Your task to perform on an android device: Check the weather Image 0: 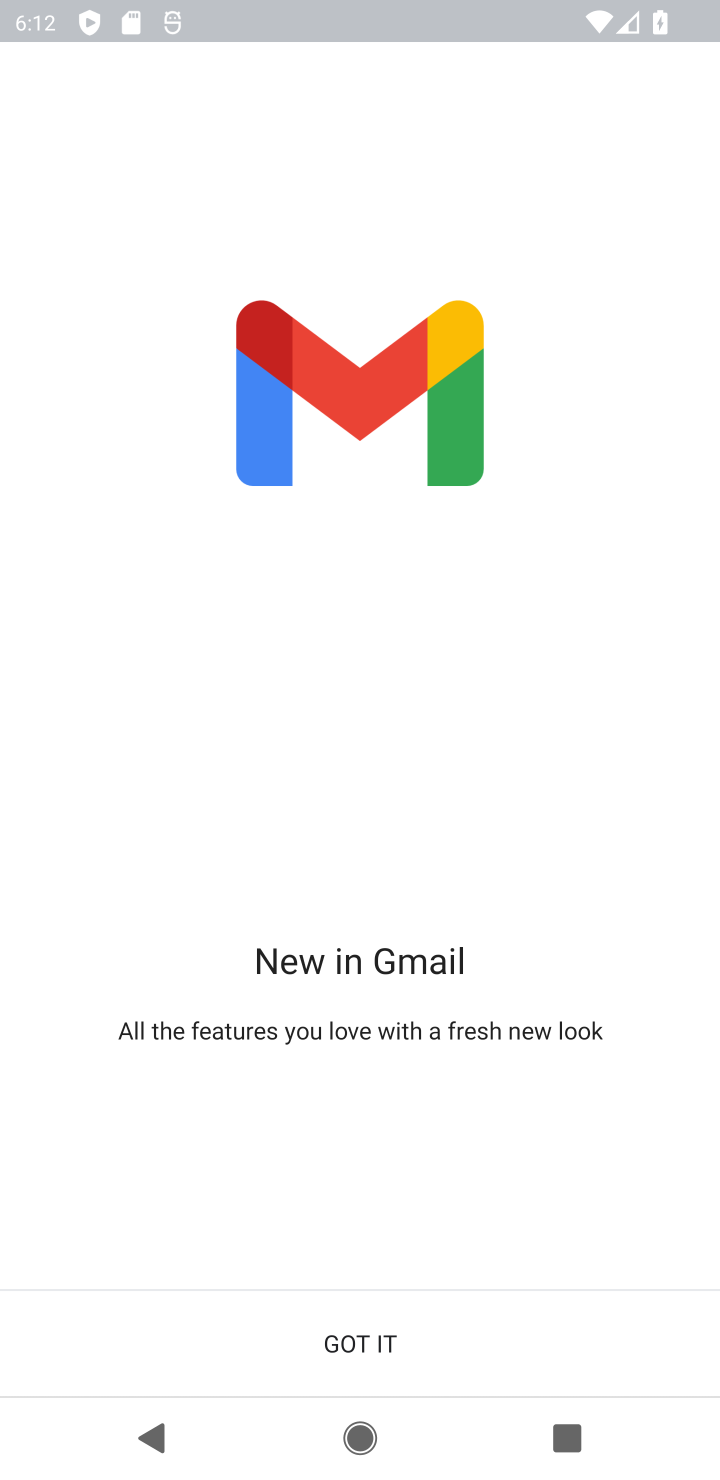
Step 0: press home button
Your task to perform on an android device: Check the weather Image 1: 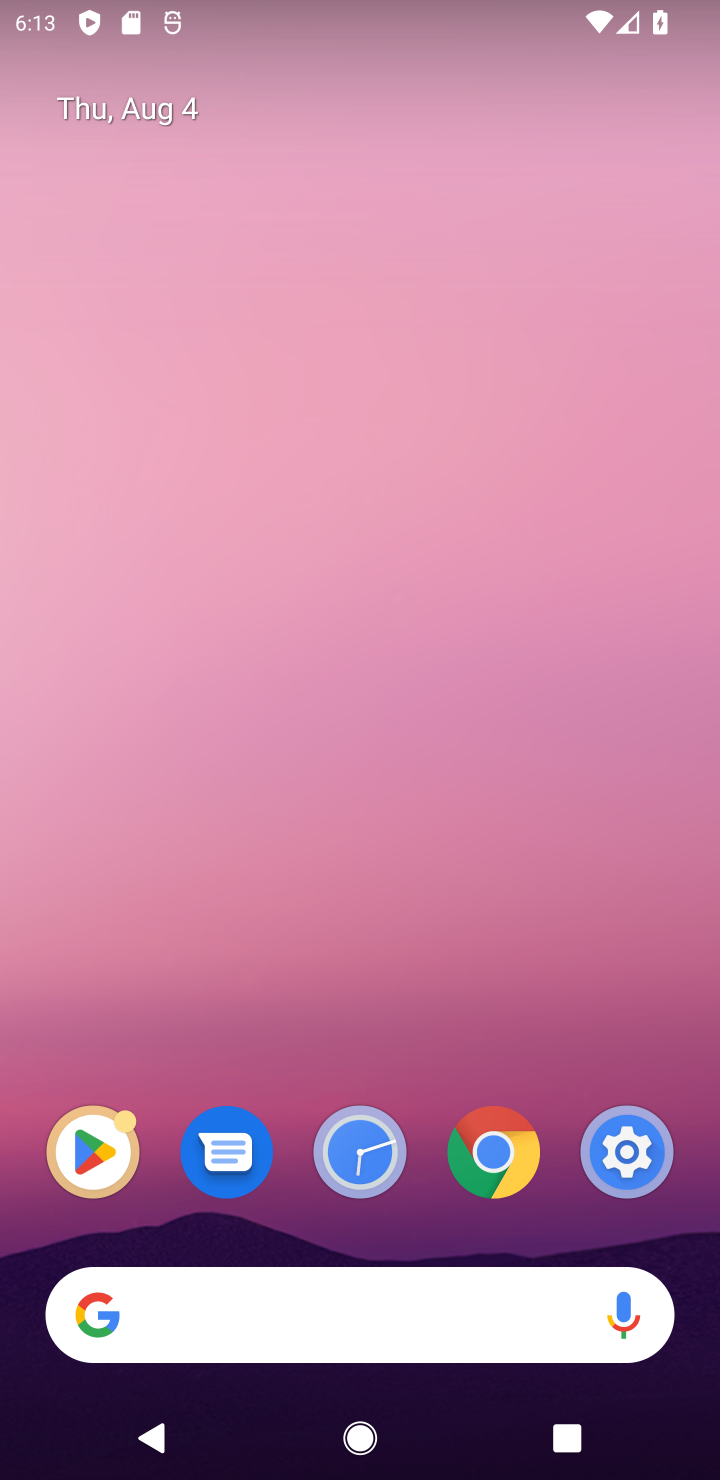
Step 1: click (313, 1330)
Your task to perform on an android device: Check the weather Image 2: 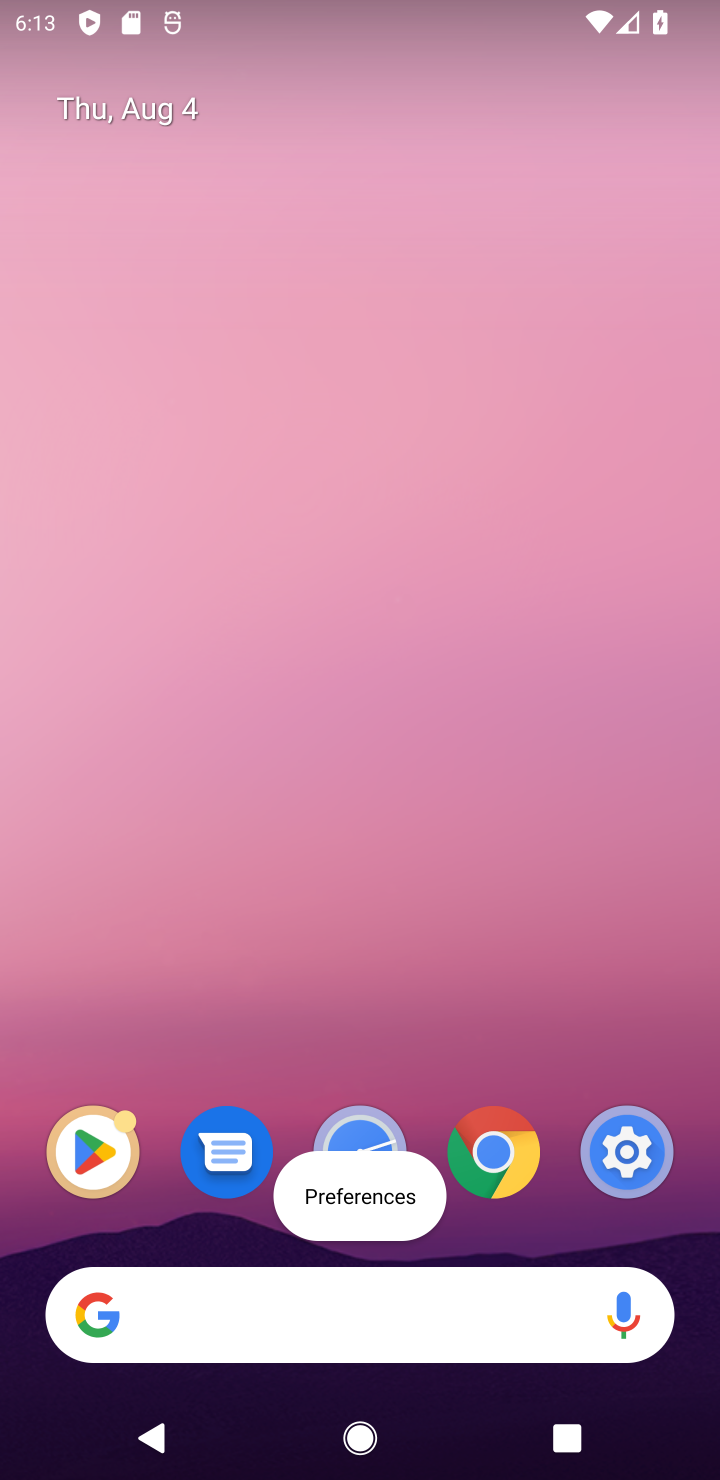
Step 2: click (312, 1329)
Your task to perform on an android device: Check the weather Image 3: 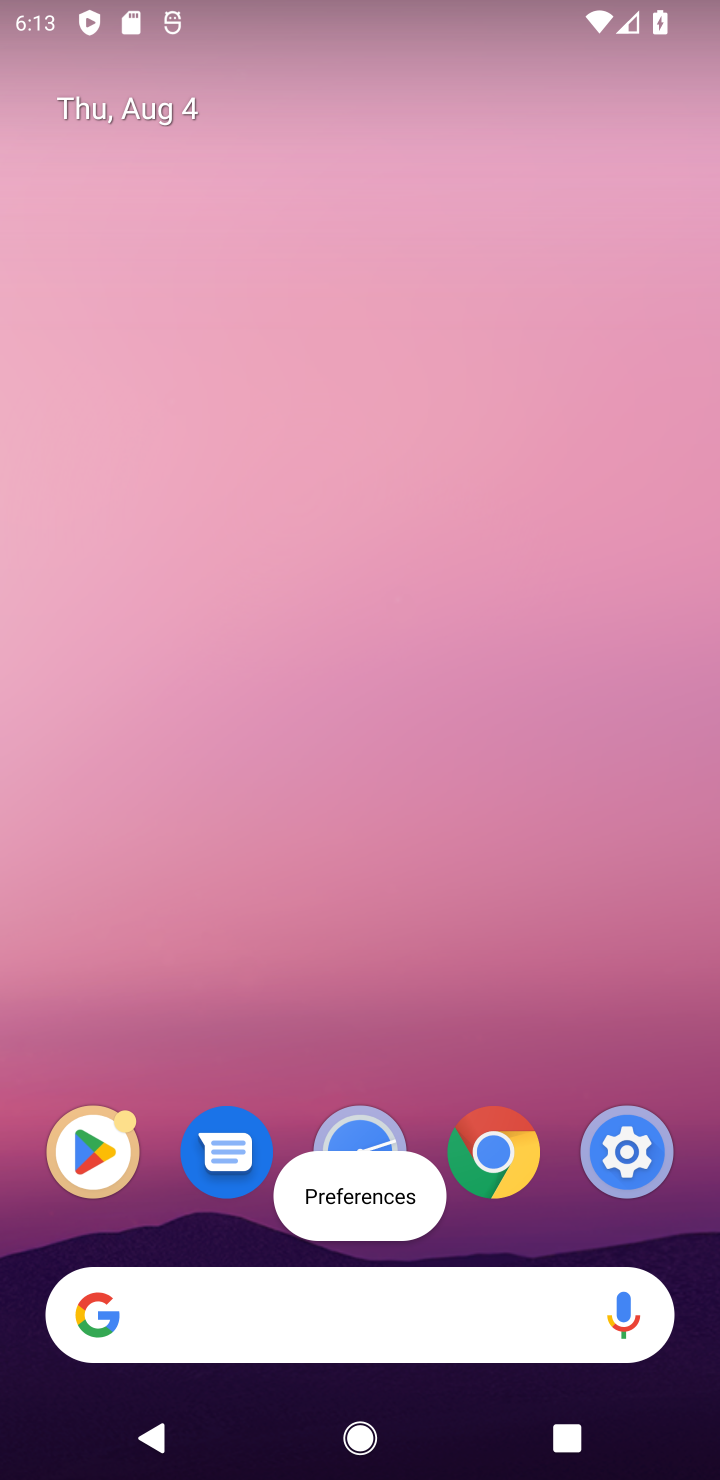
Step 3: click (163, 1341)
Your task to perform on an android device: Check the weather Image 4: 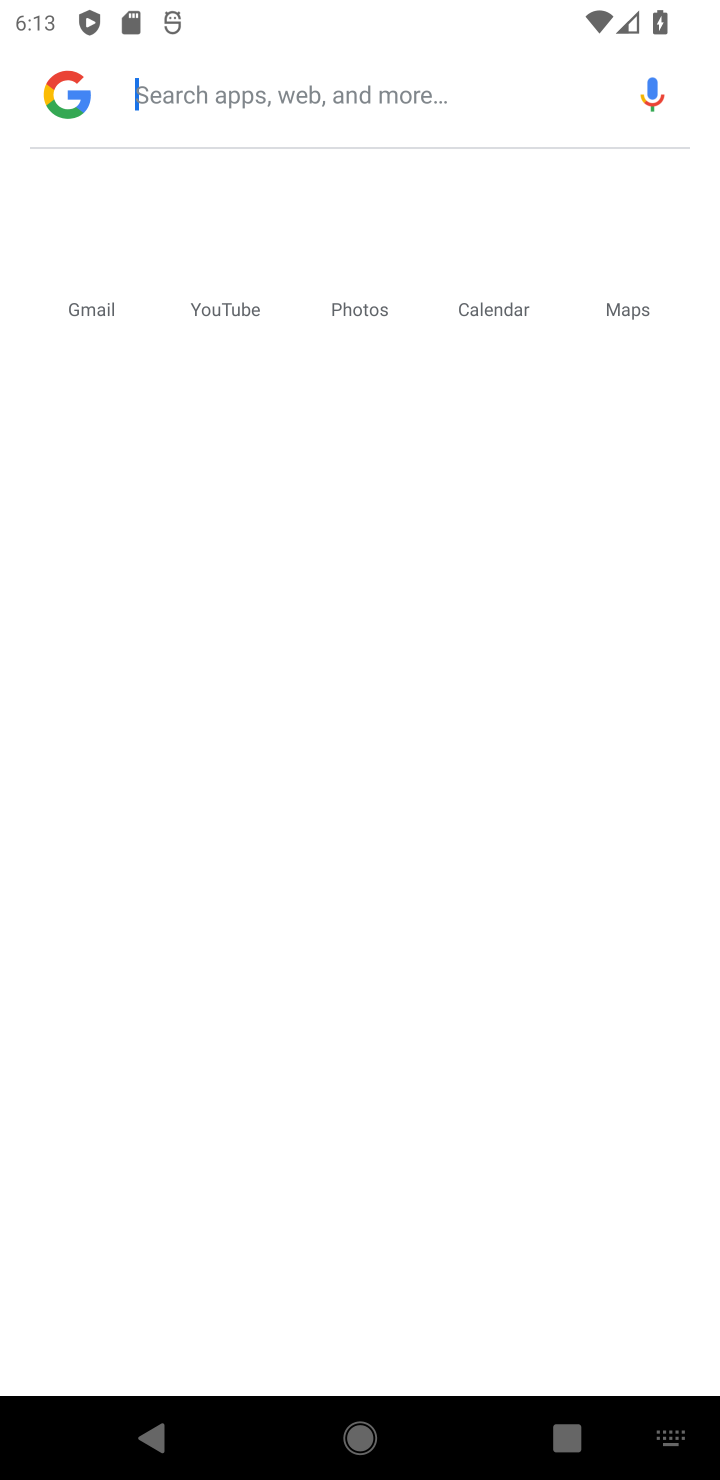
Step 4: click (294, 105)
Your task to perform on an android device: Check the weather Image 5: 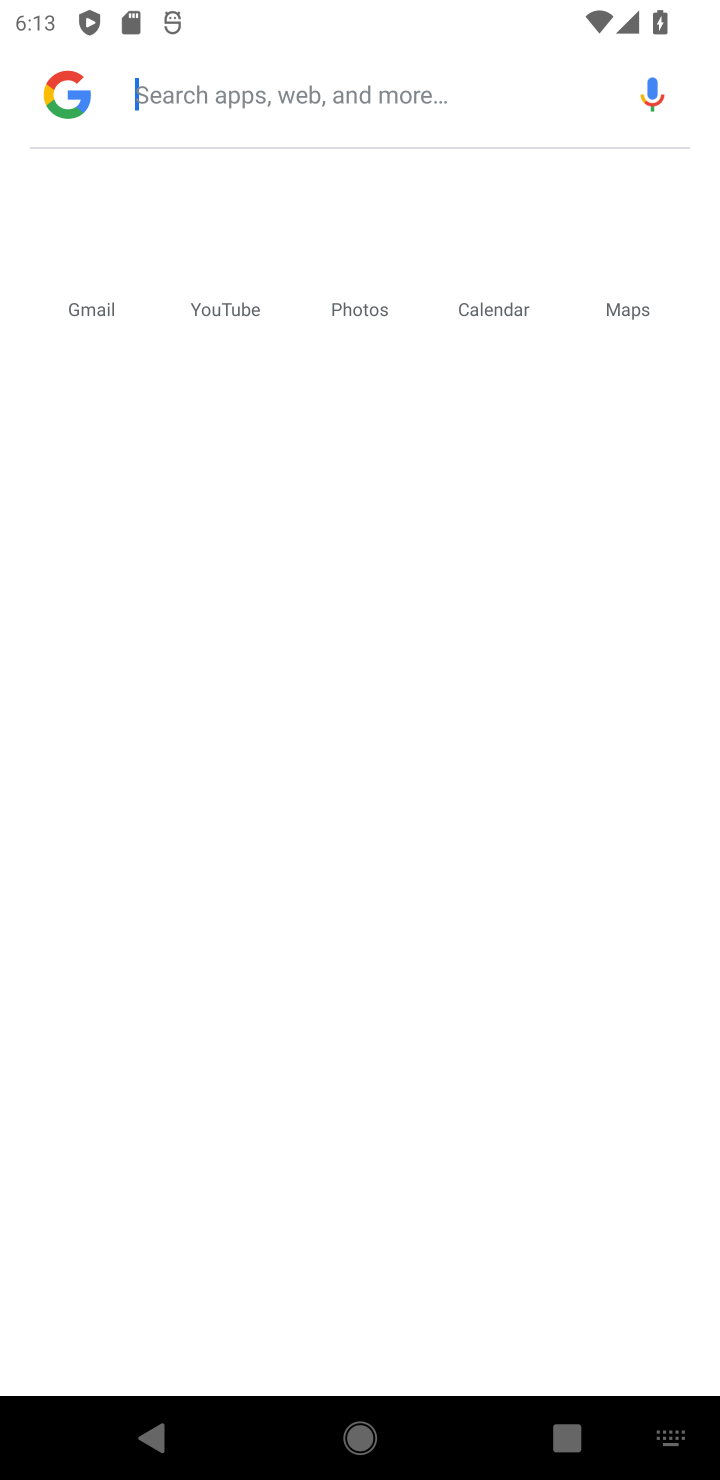
Step 5: click (301, 93)
Your task to perform on an android device: Check the weather Image 6: 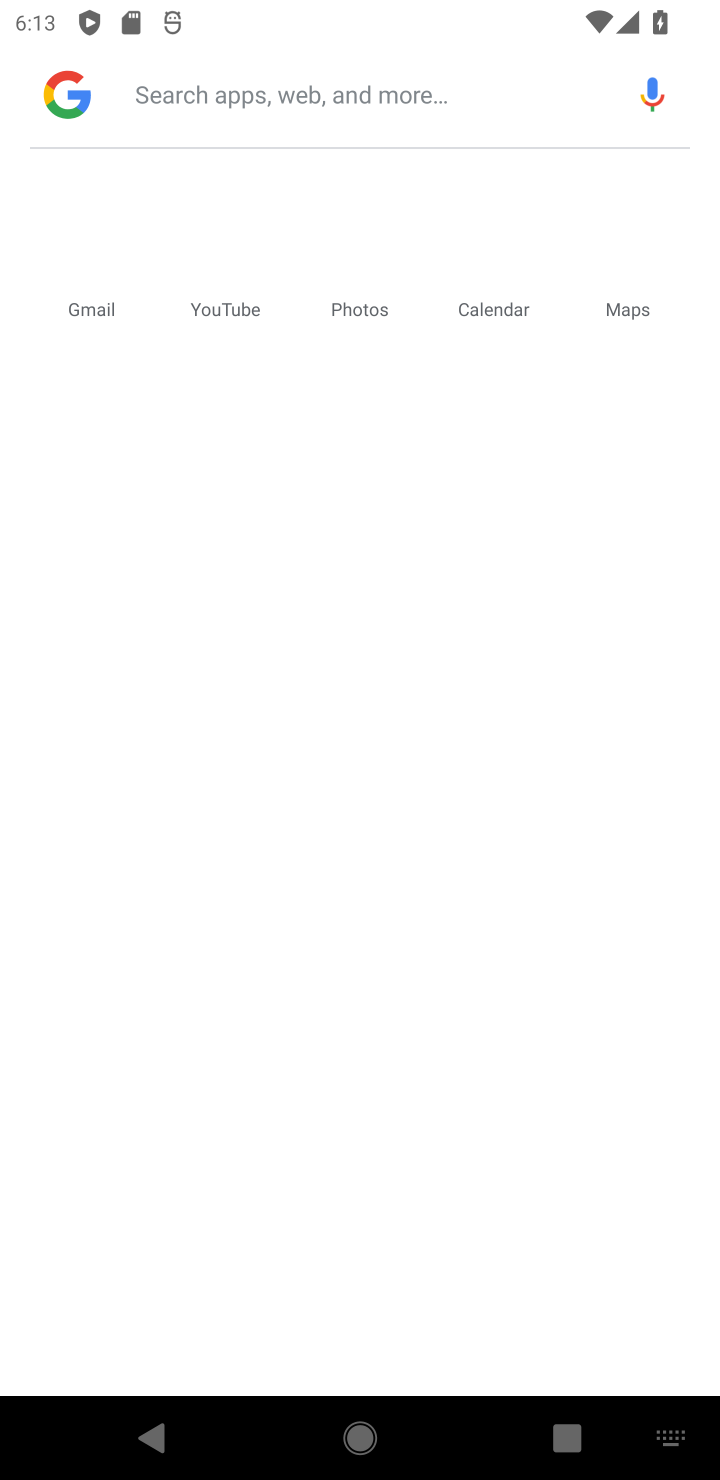
Step 6: type "weather"
Your task to perform on an android device: Check the weather Image 7: 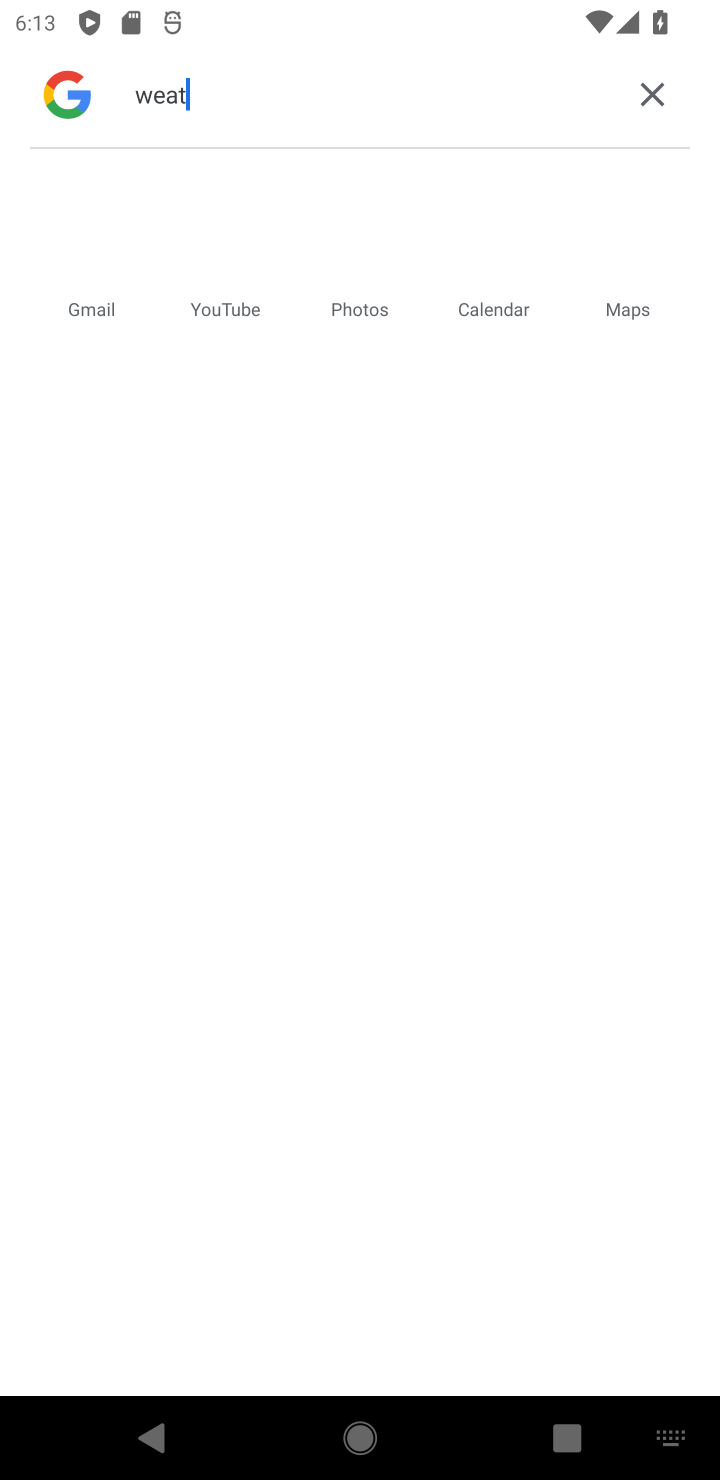
Step 7: type ""
Your task to perform on an android device: Check the weather Image 8: 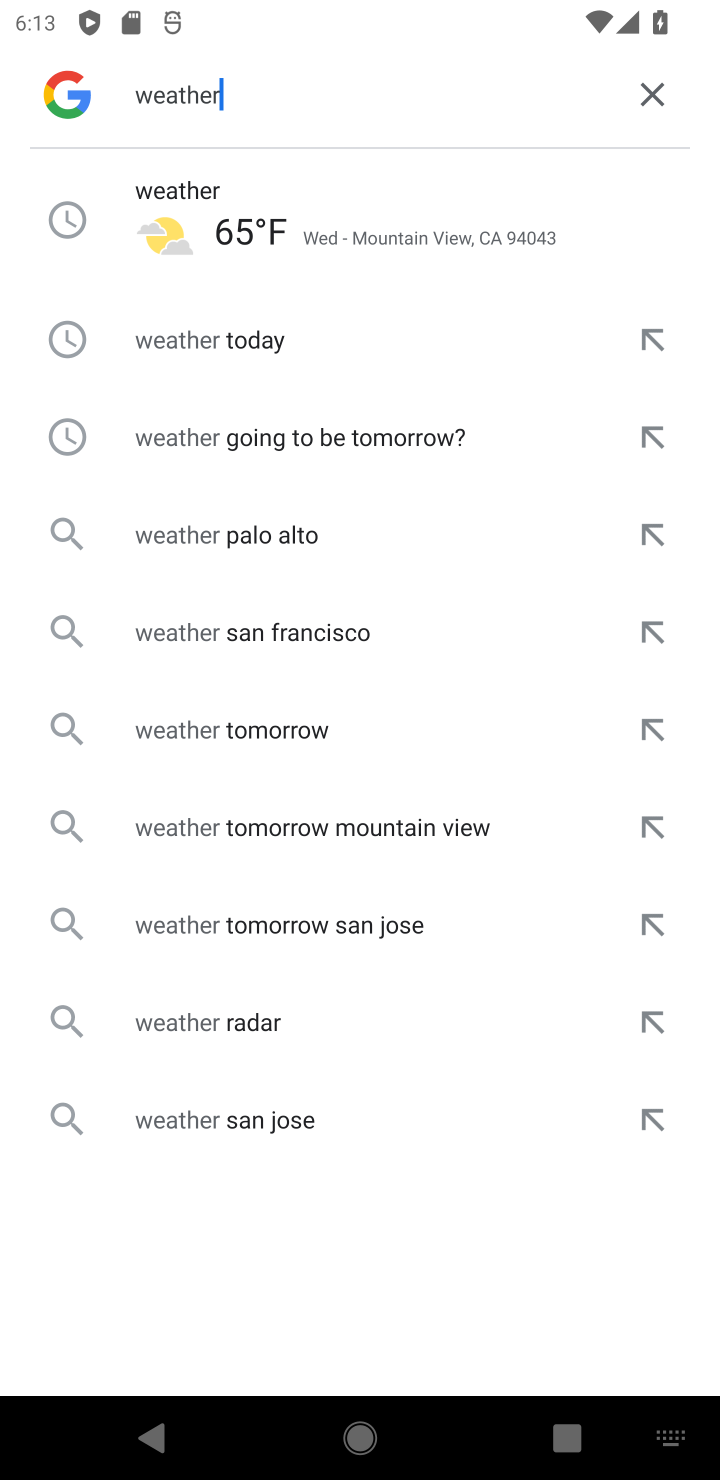
Step 8: click (255, 177)
Your task to perform on an android device: Check the weather Image 9: 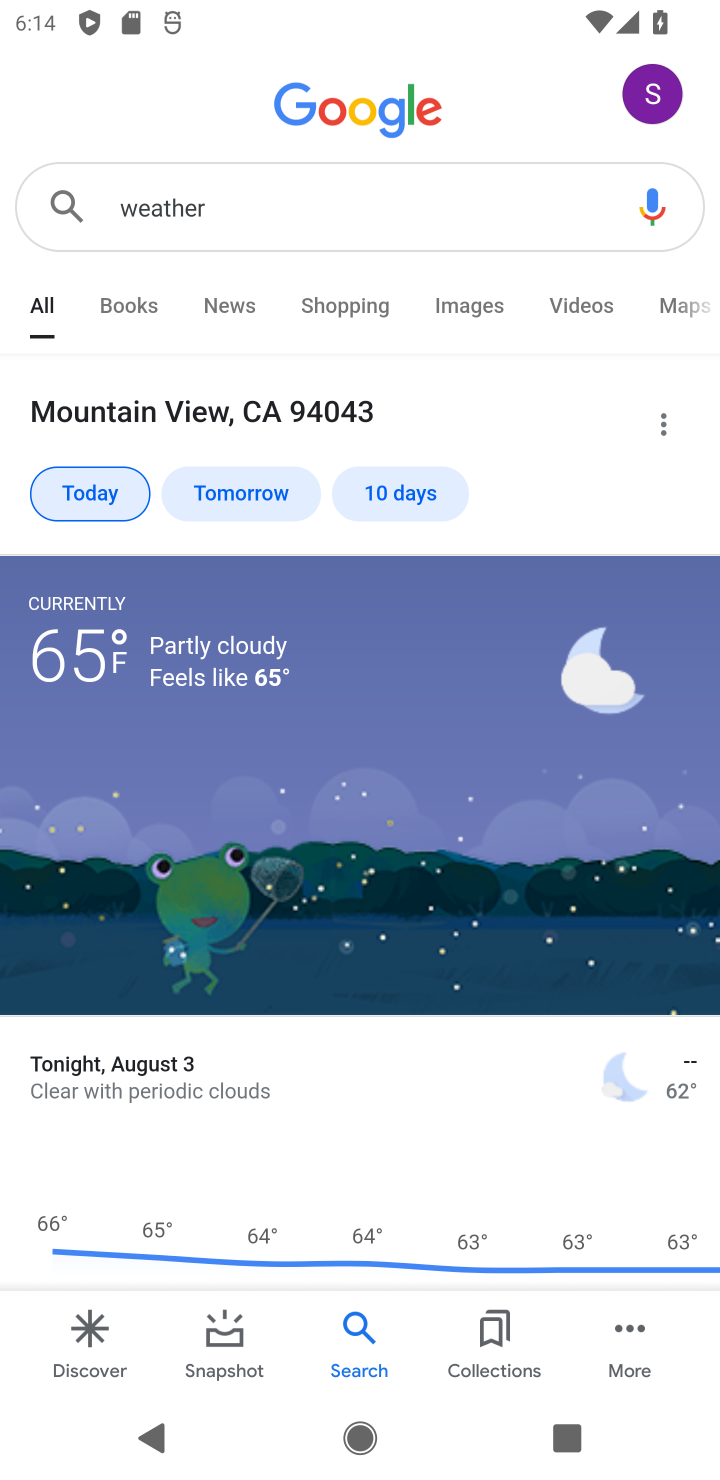
Step 9: task complete